Your task to perform on an android device: Open maps Image 0: 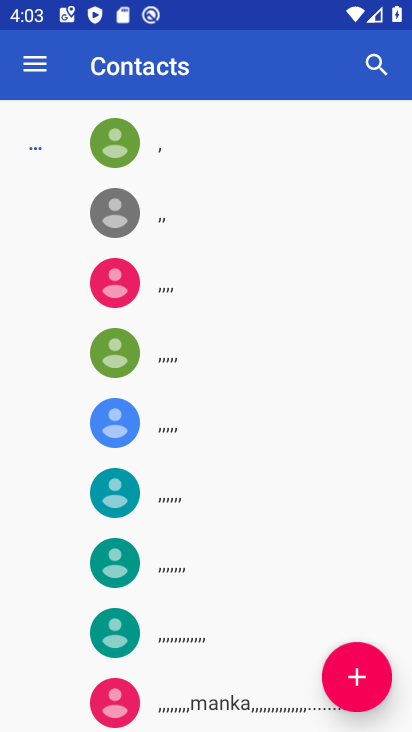
Step 0: press home button
Your task to perform on an android device: Open maps Image 1: 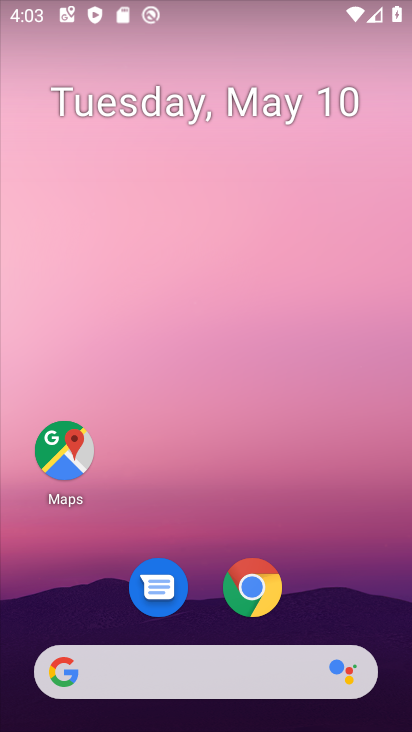
Step 1: drag from (306, 673) to (215, 117)
Your task to perform on an android device: Open maps Image 2: 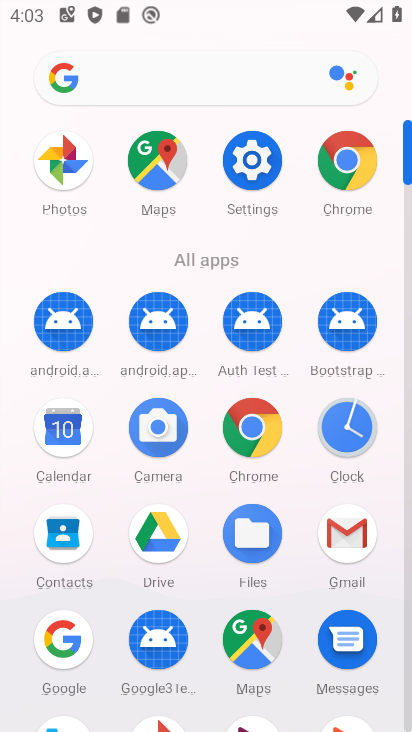
Step 2: click (144, 165)
Your task to perform on an android device: Open maps Image 3: 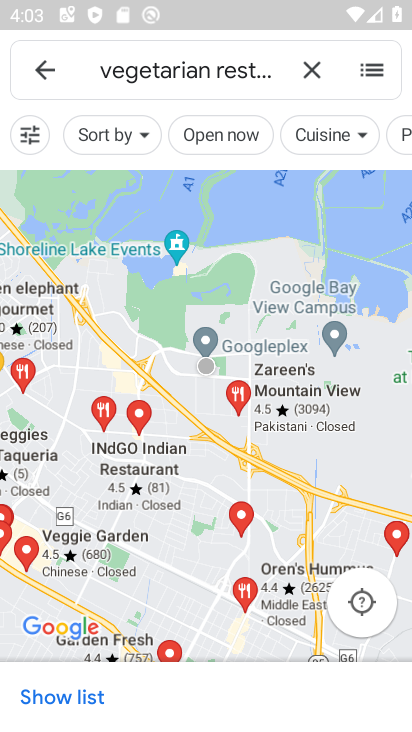
Step 3: click (45, 76)
Your task to perform on an android device: Open maps Image 4: 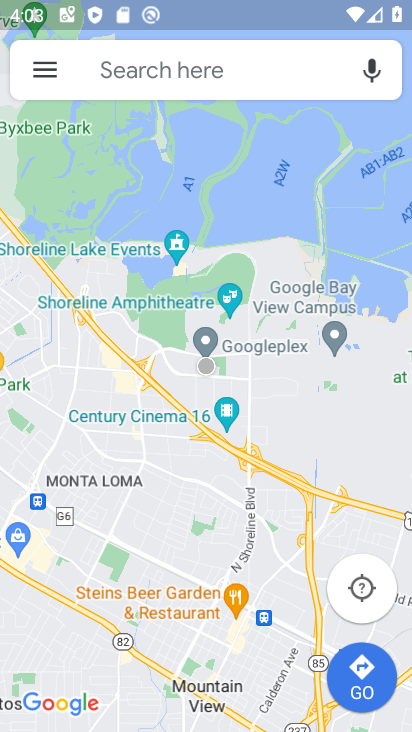
Step 4: click (377, 583)
Your task to perform on an android device: Open maps Image 5: 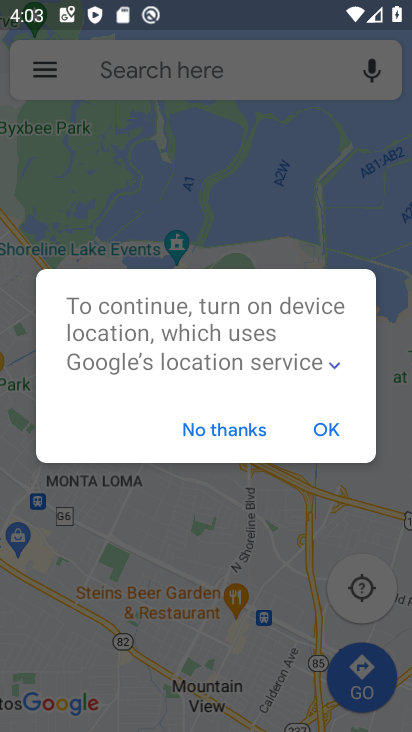
Step 5: click (323, 429)
Your task to perform on an android device: Open maps Image 6: 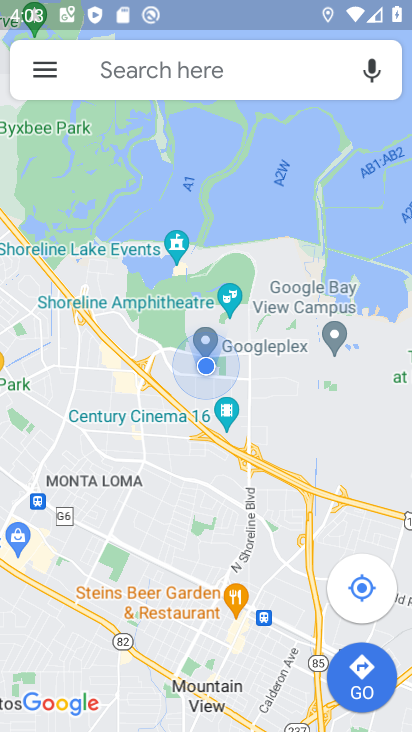
Step 6: task complete